Your task to perform on an android device: Open the stopwatch Image 0: 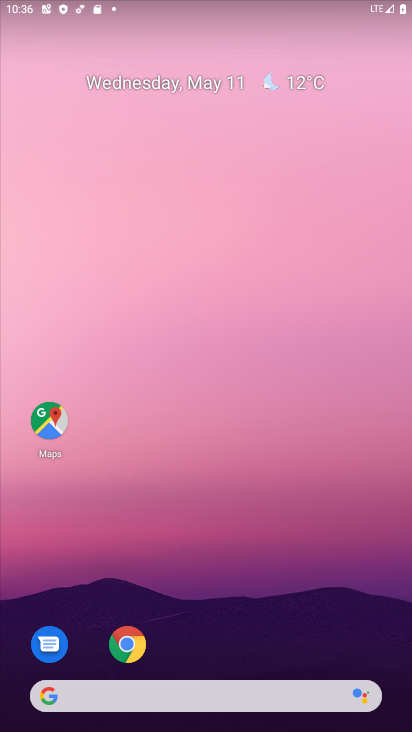
Step 0: drag from (317, 644) to (315, 259)
Your task to perform on an android device: Open the stopwatch Image 1: 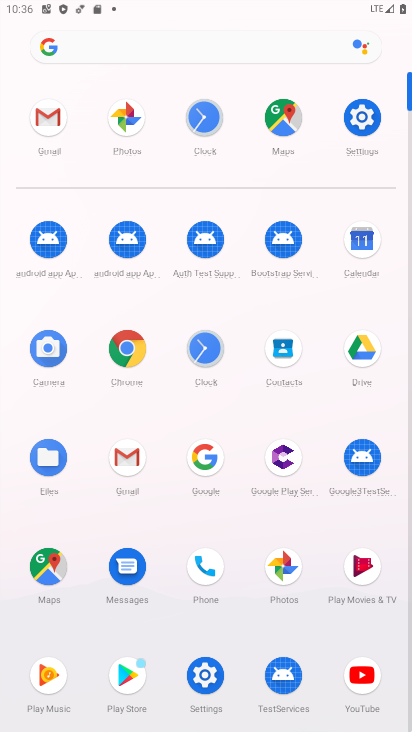
Step 1: click (208, 146)
Your task to perform on an android device: Open the stopwatch Image 2: 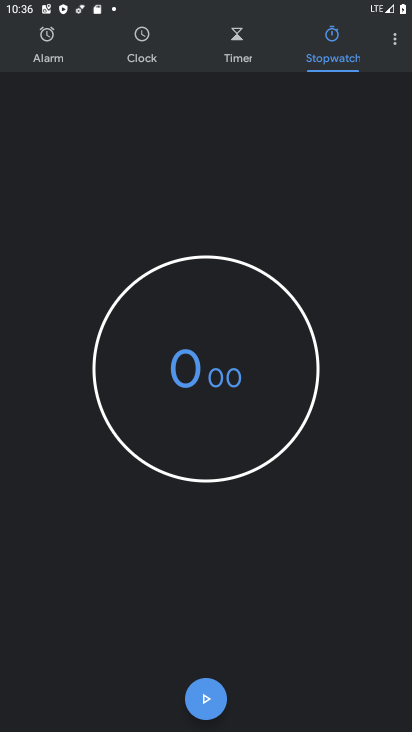
Step 2: task complete